Your task to perform on an android device: turn on airplane mode Image 0: 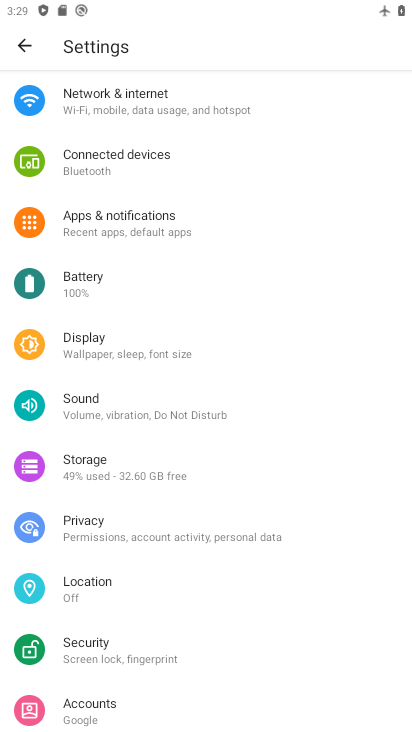
Step 0: click (159, 97)
Your task to perform on an android device: turn on airplane mode Image 1: 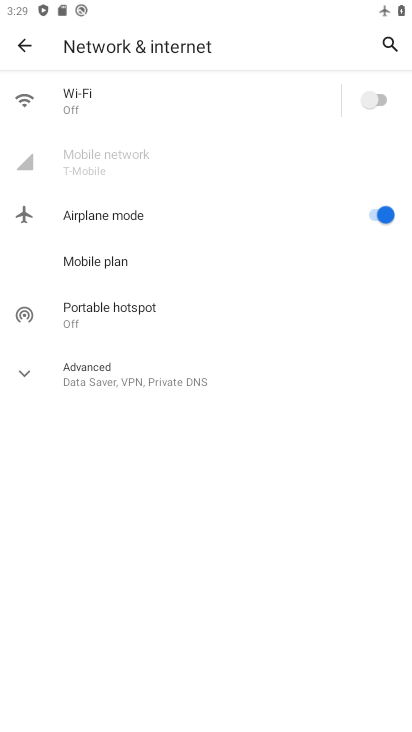
Step 1: task complete